Your task to perform on an android device: open chrome and create a bookmark for the current page Image 0: 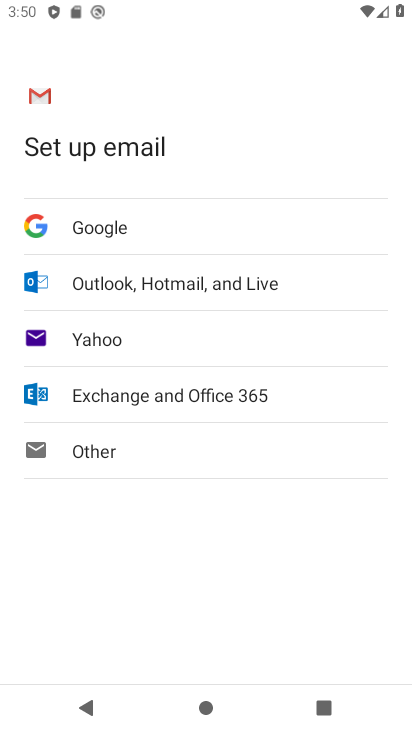
Step 0: press home button
Your task to perform on an android device: open chrome and create a bookmark for the current page Image 1: 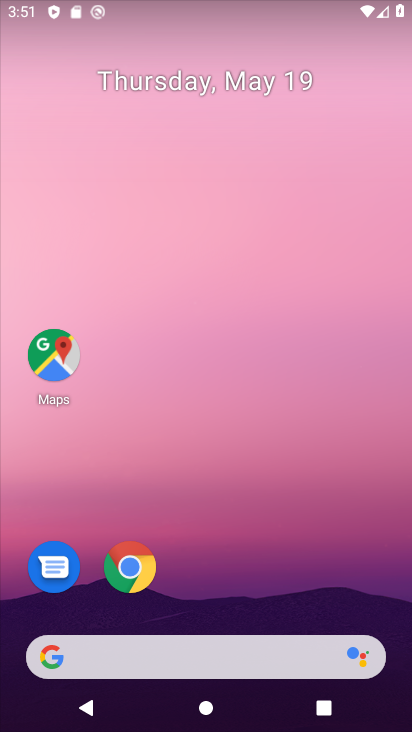
Step 1: click (126, 570)
Your task to perform on an android device: open chrome and create a bookmark for the current page Image 2: 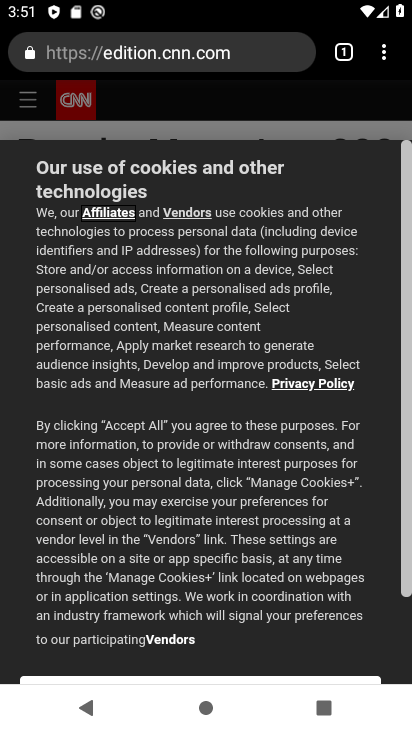
Step 2: click (385, 57)
Your task to perform on an android device: open chrome and create a bookmark for the current page Image 3: 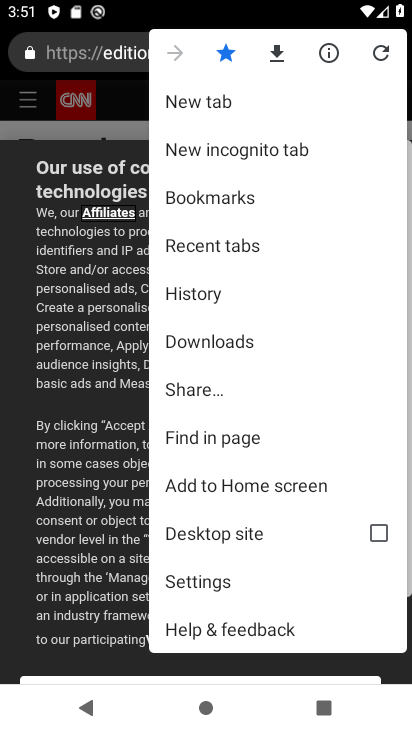
Step 3: task complete